Your task to perform on an android device: turn pop-ups off in chrome Image 0: 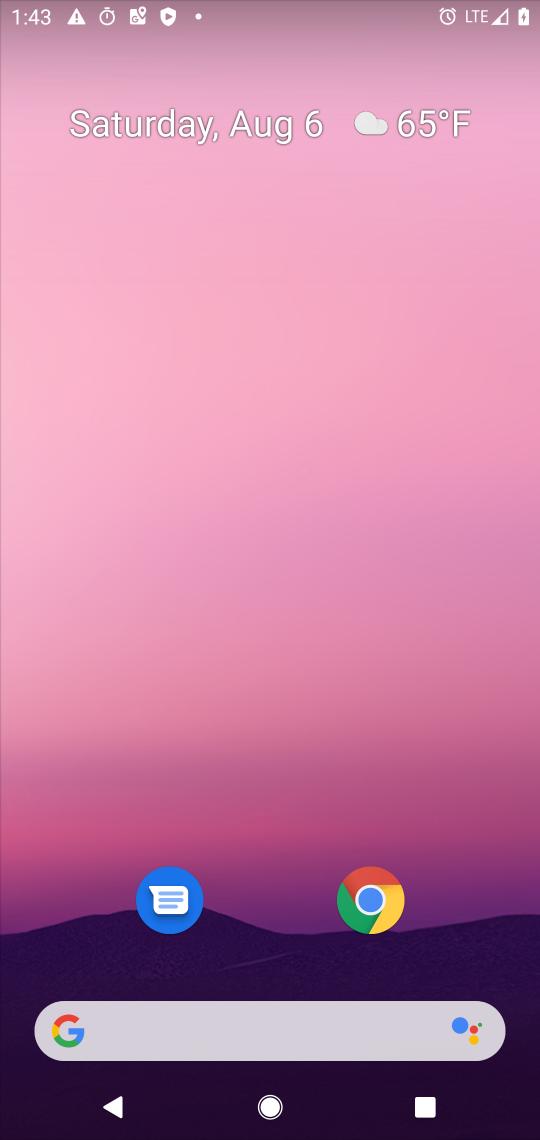
Step 0: click (362, 897)
Your task to perform on an android device: turn pop-ups off in chrome Image 1: 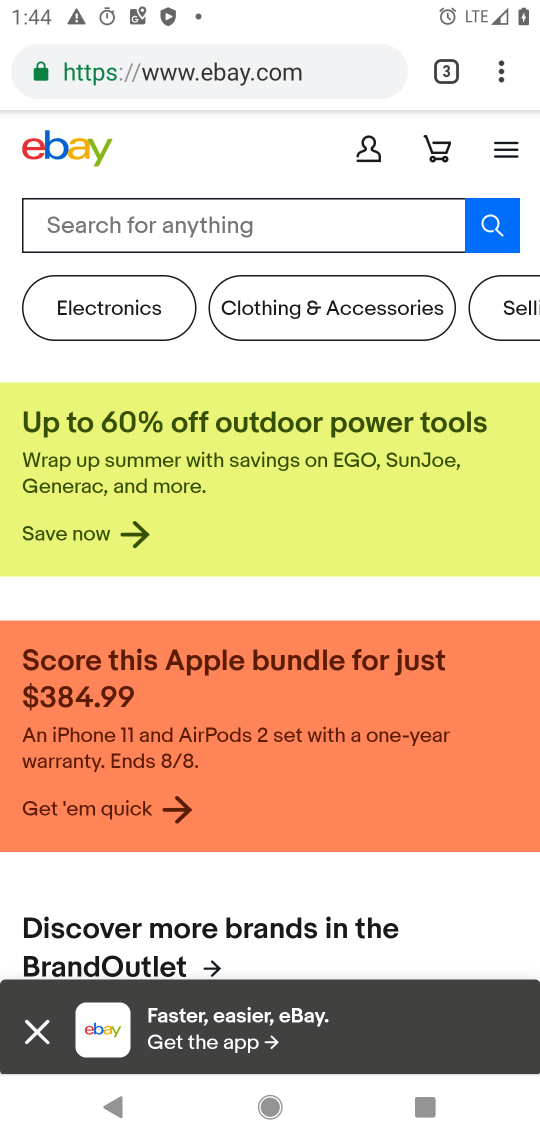
Step 1: click (502, 84)
Your task to perform on an android device: turn pop-ups off in chrome Image 2: 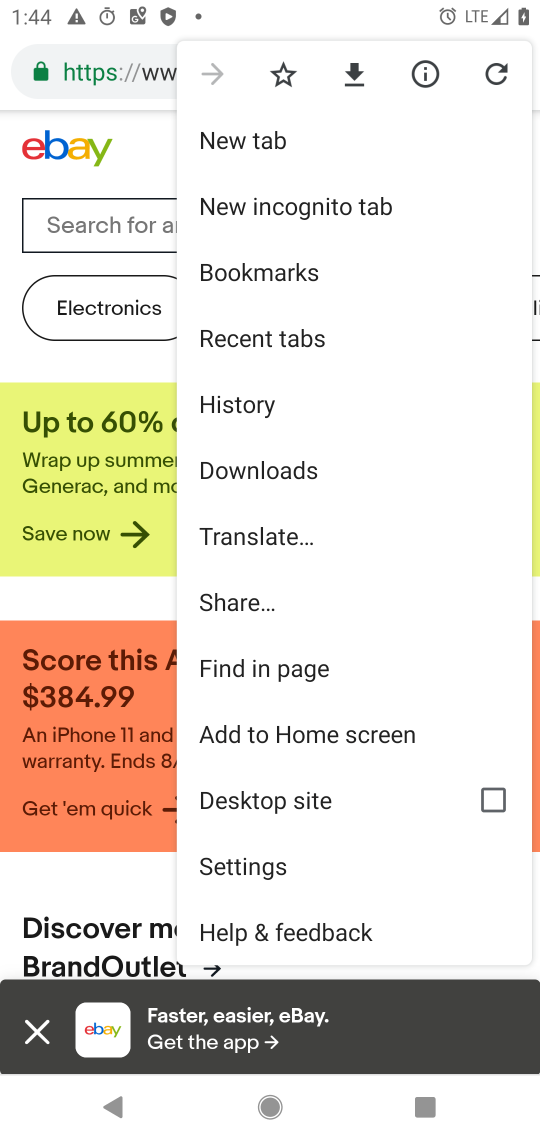
Step 2: click (258, 863)
Your task to perform on an android device: turn pop-ups off in chrome Image 3: 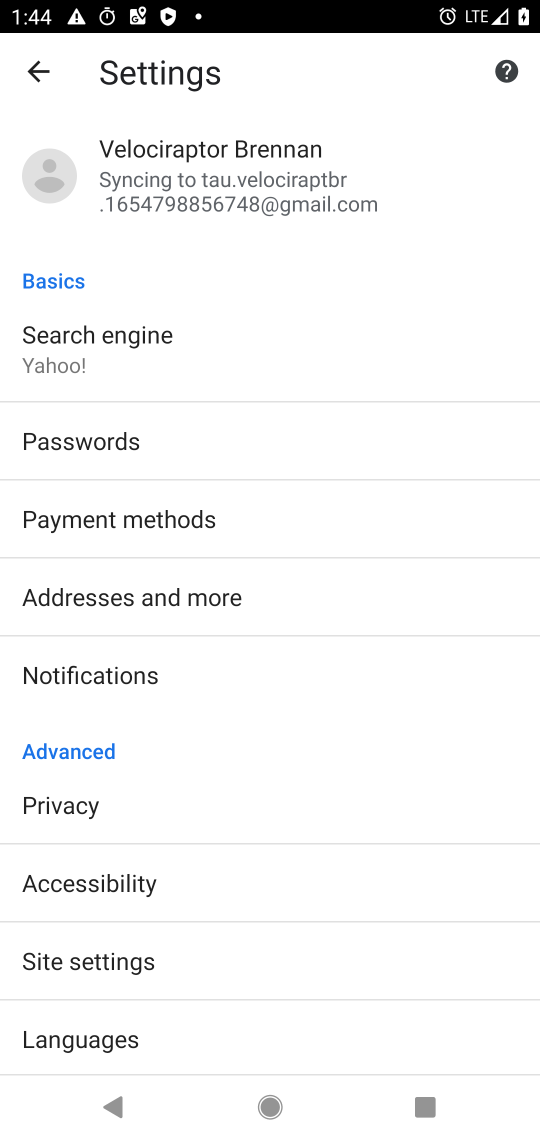
Step 3: click (141, 956)
Your task to perform on an android device: turn pop-ups off in chrome Image 4: 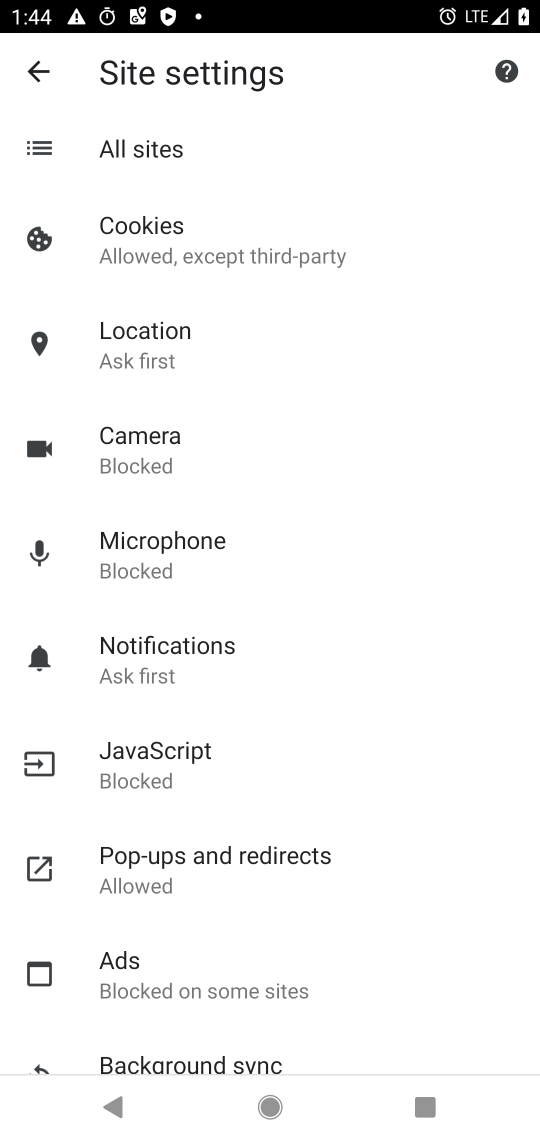
Step 4: click (140, 883)
Your task to perform on an android device: turn pop-ups off in chrome Image 5: 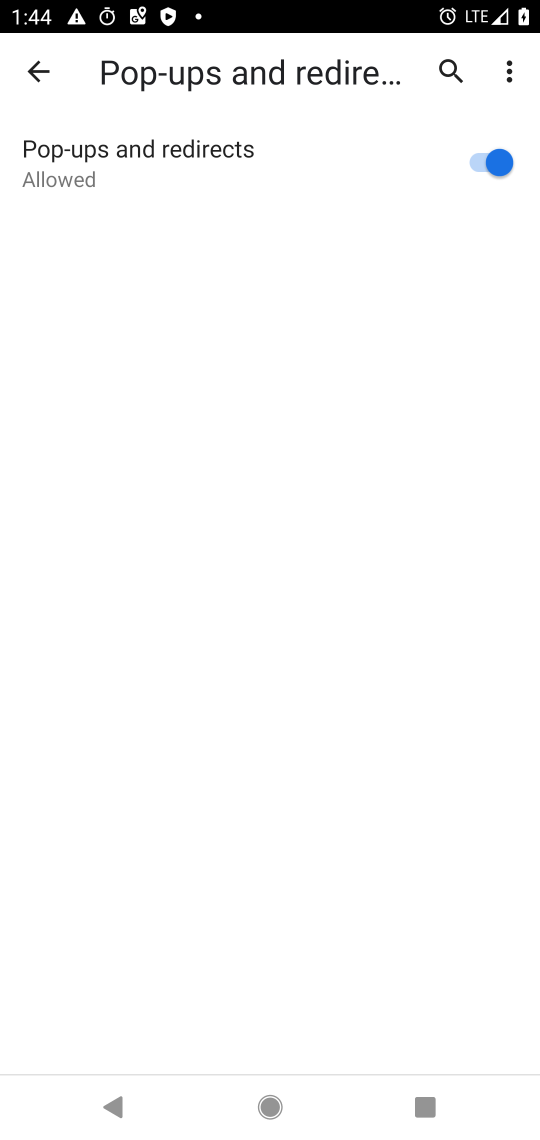
Step 5: click (482, 166)
Your task to perform on an android device: turn pop-ups off in chrome Image 6: 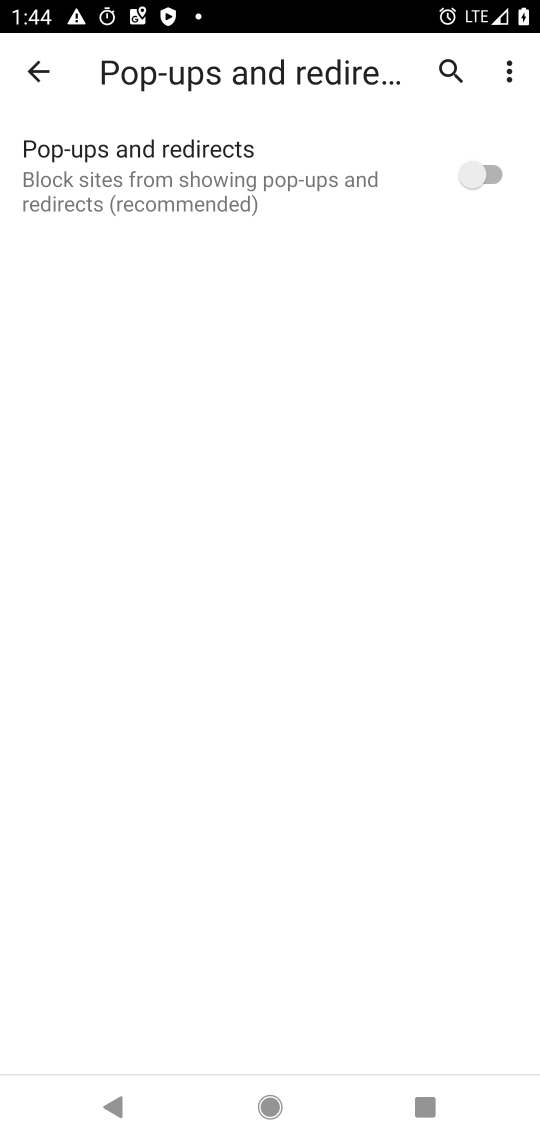
Step 6: task complete